Your task to perform on an android device: Go to battery settings Image 0: 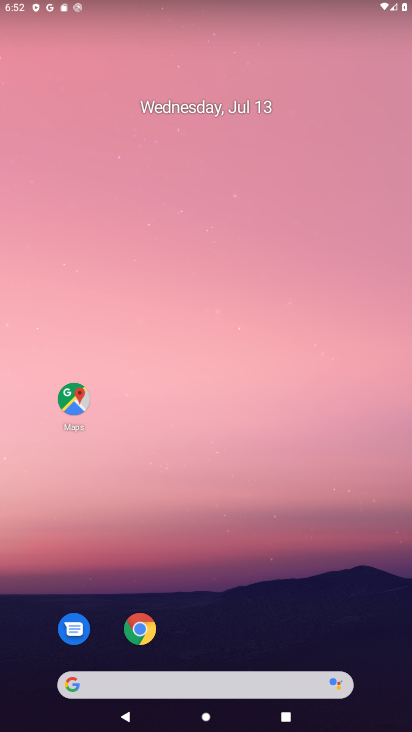
Step 0: drag from (250, 601) to (331, 19)
Your task to perform on an android device: Go to battery settings Image 1: 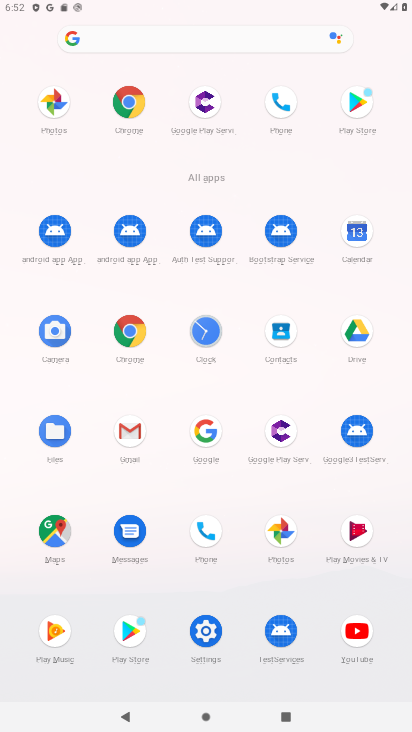
Step 1: drag from (206, 617) to (243, 623)
Your task to perform on an android device: Go to battery settings Image 2: 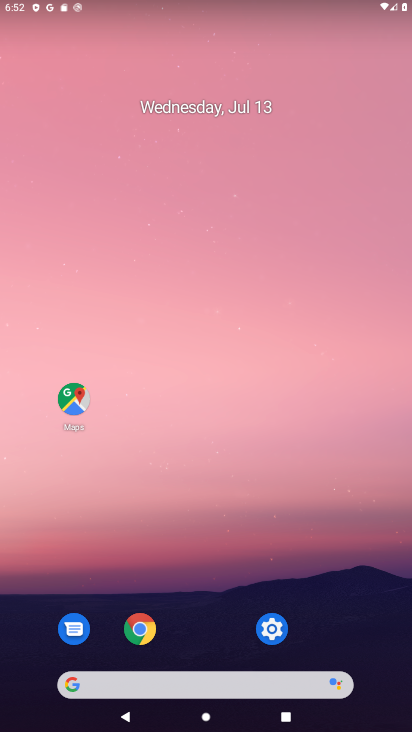
Step 2: click (279, 624)
Your task to perform on an android device: Go to battery settings Image 3: 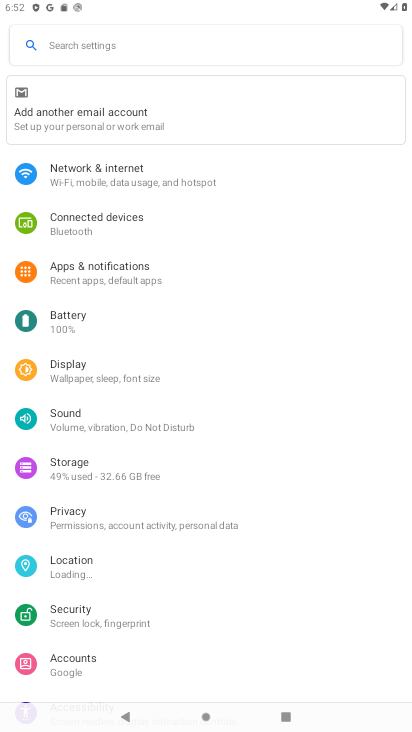
Step 3: click (132, 339)
Your task to perform on an android device: Go to battery settings Image 4: 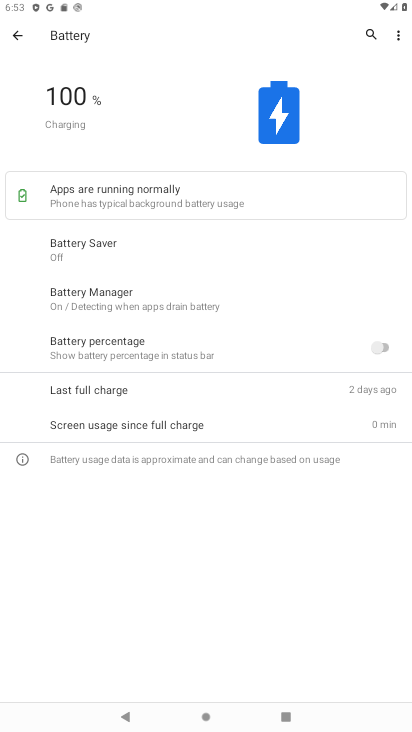
Step 4: task complete